Your task to perform on an android device: Do I have any events today? Image 0: 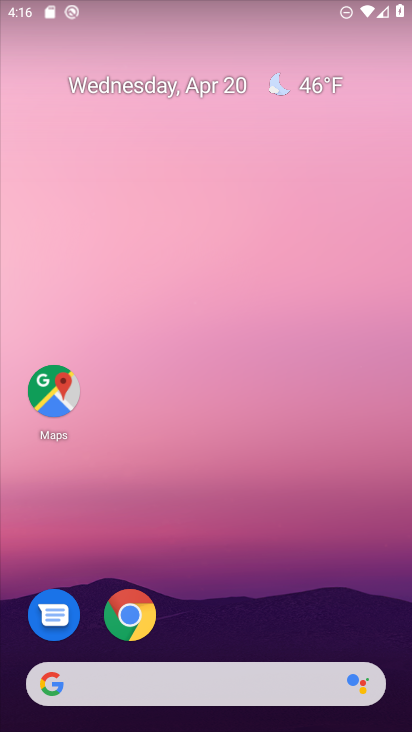
Step 0: drag from (303, 505) to (369, 3)
Your task to perform on an android device: Do I have any events today? Image 1: 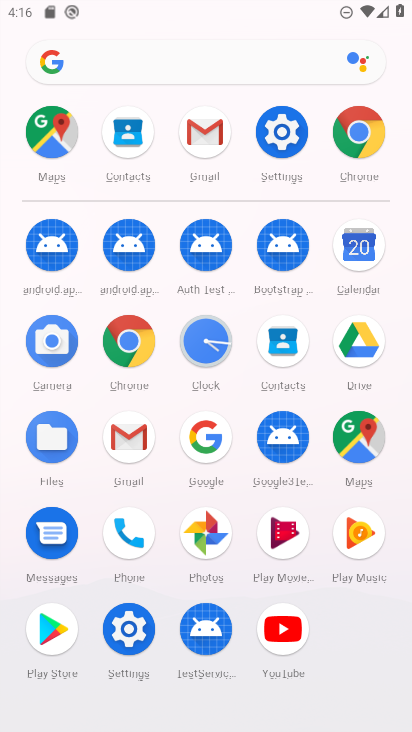
Step 1: click (363, 247)
Your task to perform on an android device: Do I have any events today? Image 2: 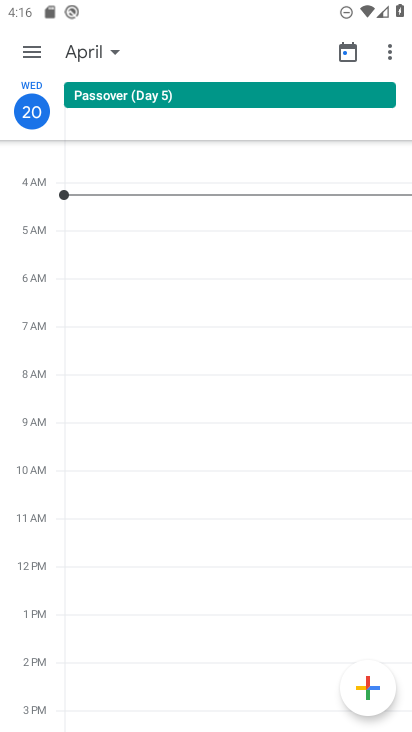
Step 2: click (96, 45)
Your task to perform on an android device: Do I have any events today? Image 3: 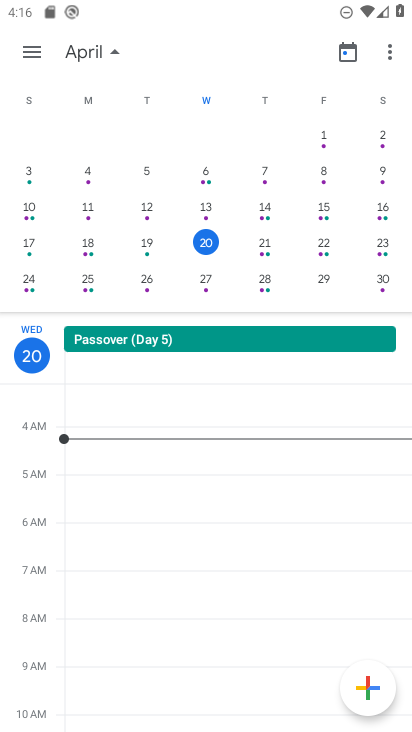
Step 3: click (208, 246)
Your task to perform on an android device: Do I have any events today? Image 4: 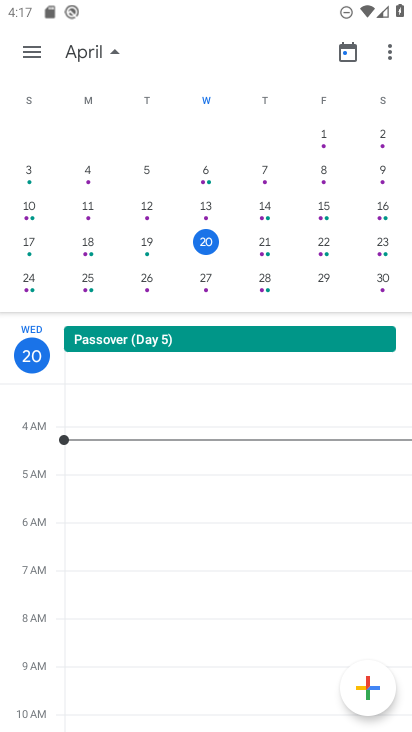
Step 4: task complete